Your task to perform on an android device: check out phone information Image 0: 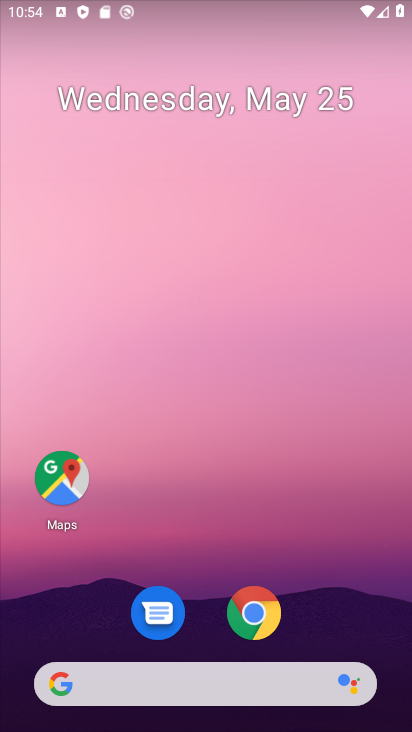
Step 0: drag from (232, 530) to (243, 29)
Your task to perform on an android device: check out phone information Image 1: 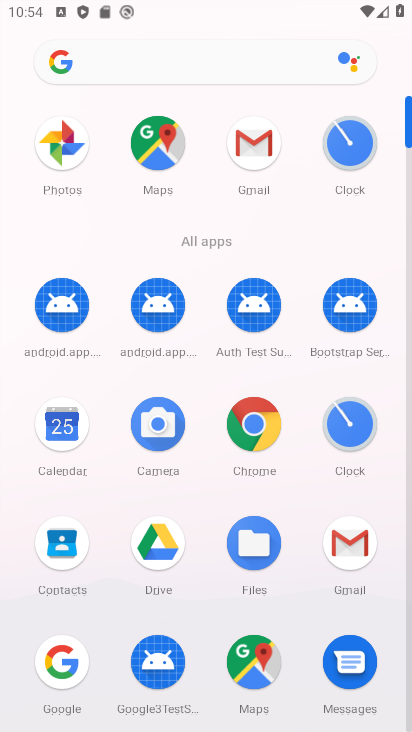
Step 1: drag from (206, 439) to (205, 105)
Your task to perform on an android device: check out phone information Image 2: 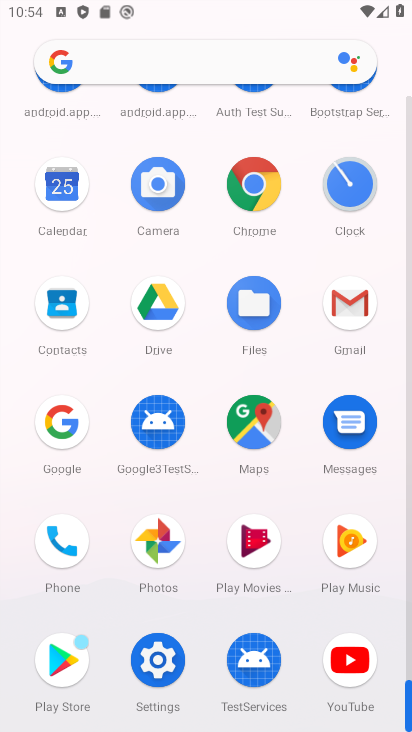
Step 2: click (61, 529)
Your task to perform on an android device: check out phone information Image 3: 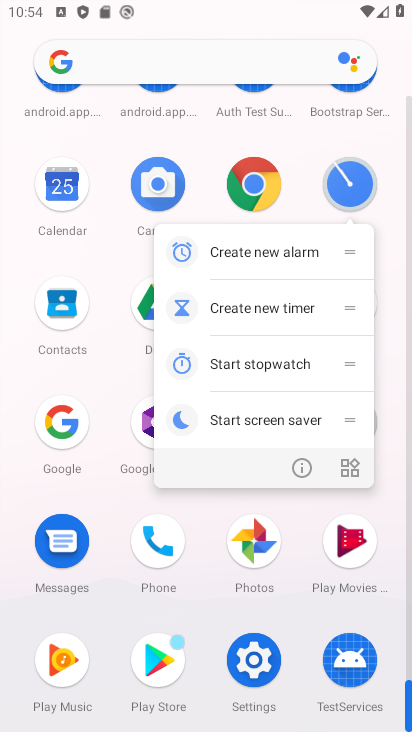
Step 3: click (61, 529)
Your task to perform on an android device: check out phone information Image 4: 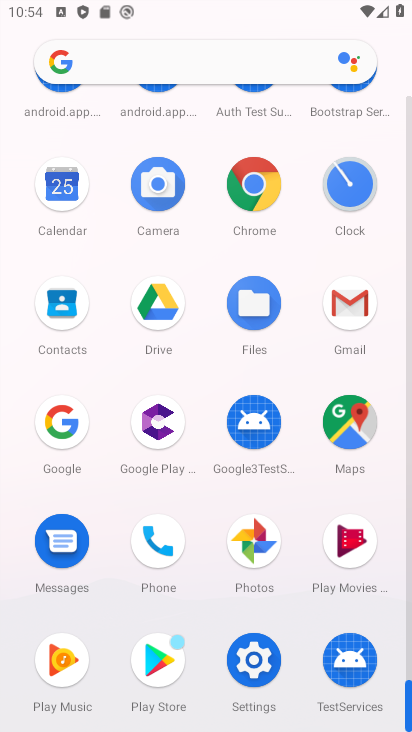
Step 4: click (152, 545)
Your task to perform on an android device: check out phone information Image 5: 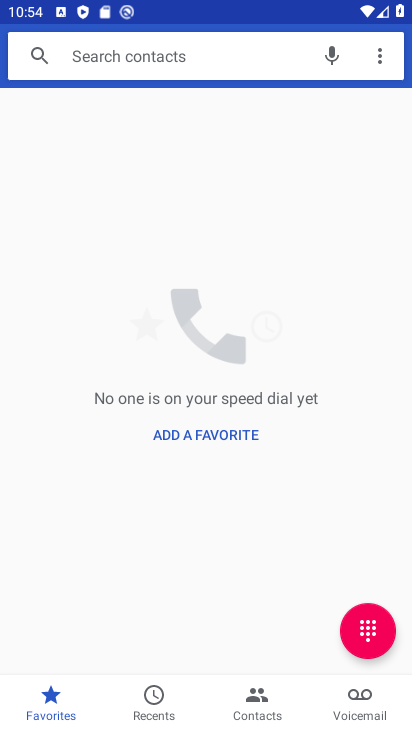
Step 5: click (379, 53)
Your task to perform on an android device: check out phone information Image 6: 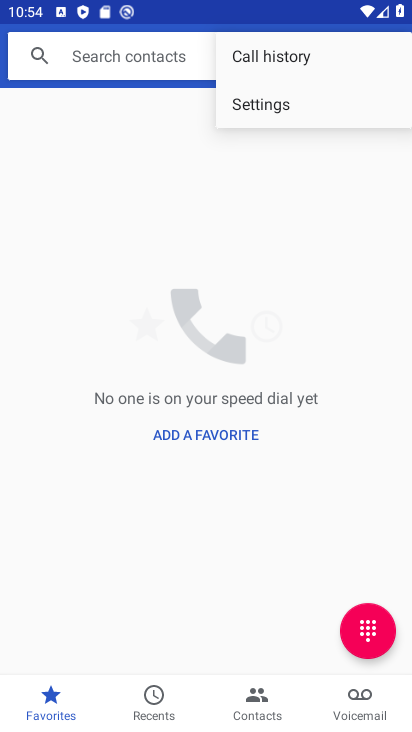
Step 6: click (296, 98)
Your task to perform on an android device: check out phone information Image 7: 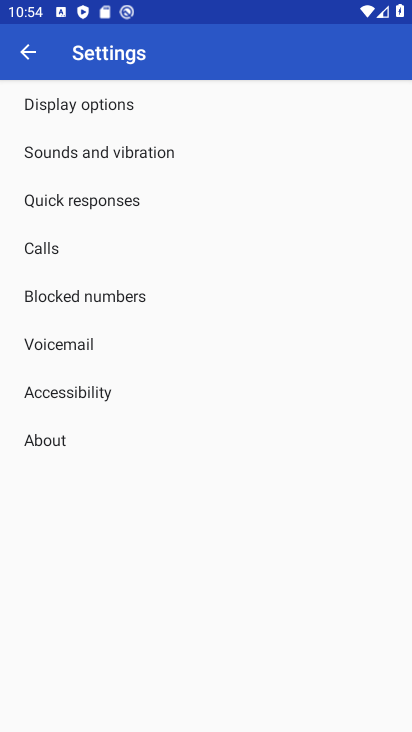
Step 7: click (55, 432)
Your task to perform on an android device: check out phone information Image 8: 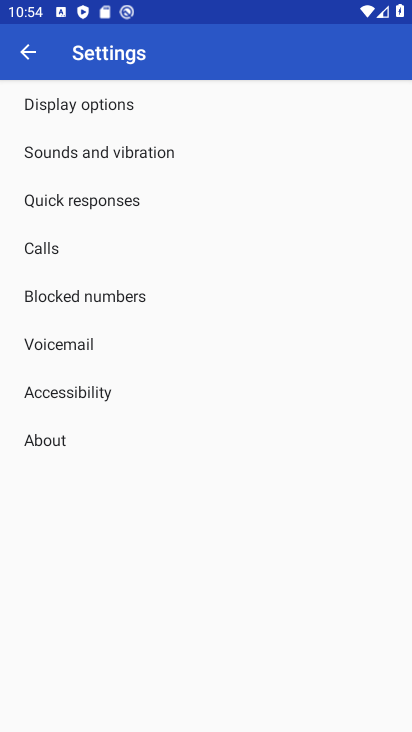
Step 8: click (52, 435)
Your task to perform on an android device: check out phone information Image 9: 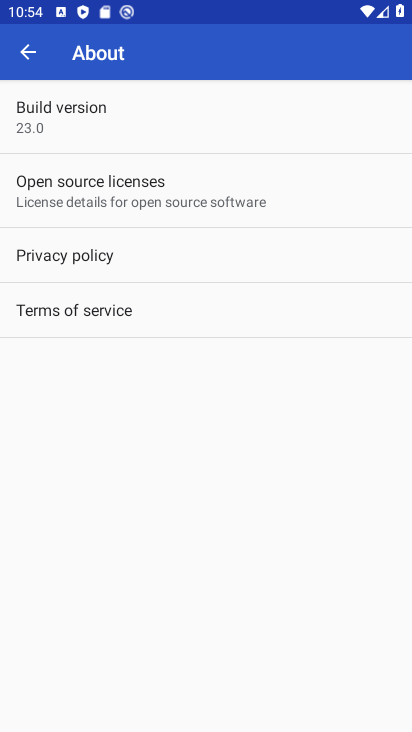
Step 9: task complete